Your task to perform on an android device: What's a good restaurant in Las Vegas? Image 0: 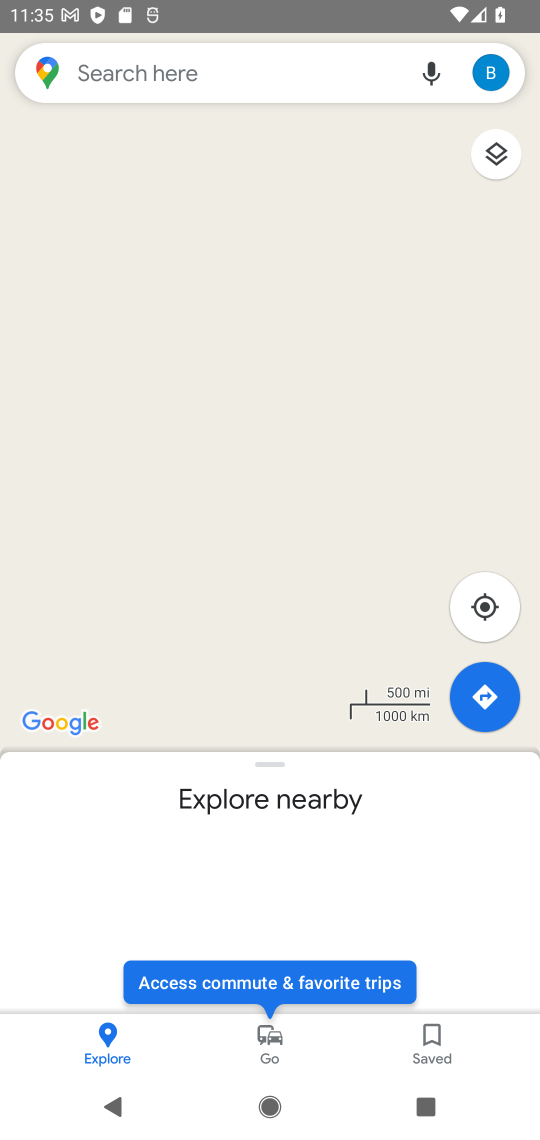
Step 0: press home button
Your task to perform on an android device: What's a good restaurant in Las Vegas? Image 1: 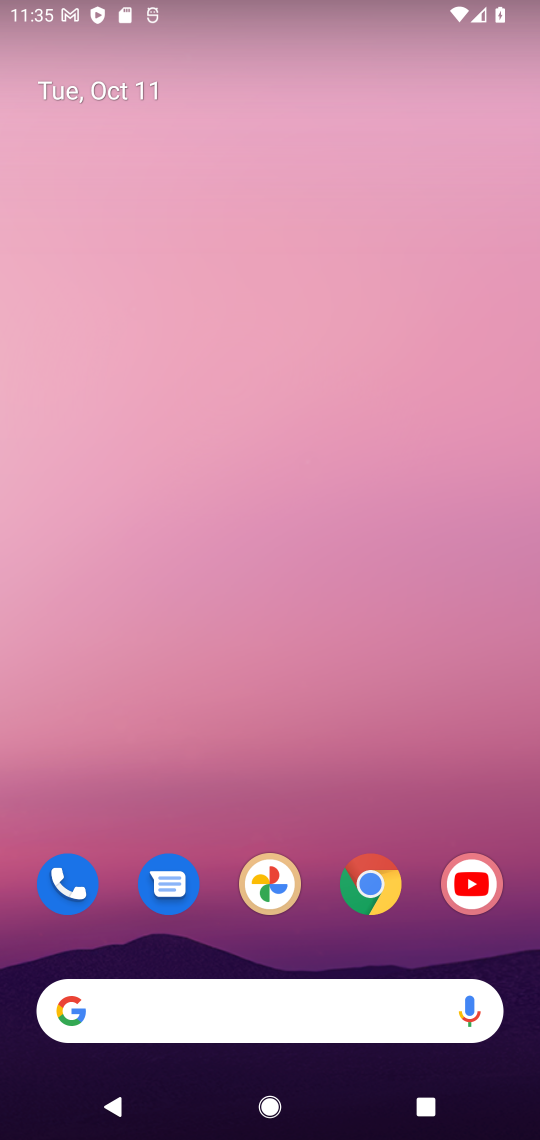
Step 1: drag from (242, 1022) to (284, 273)
Your task to perform on an android device: What's a good restaurant in Las Vegas? Image 2: 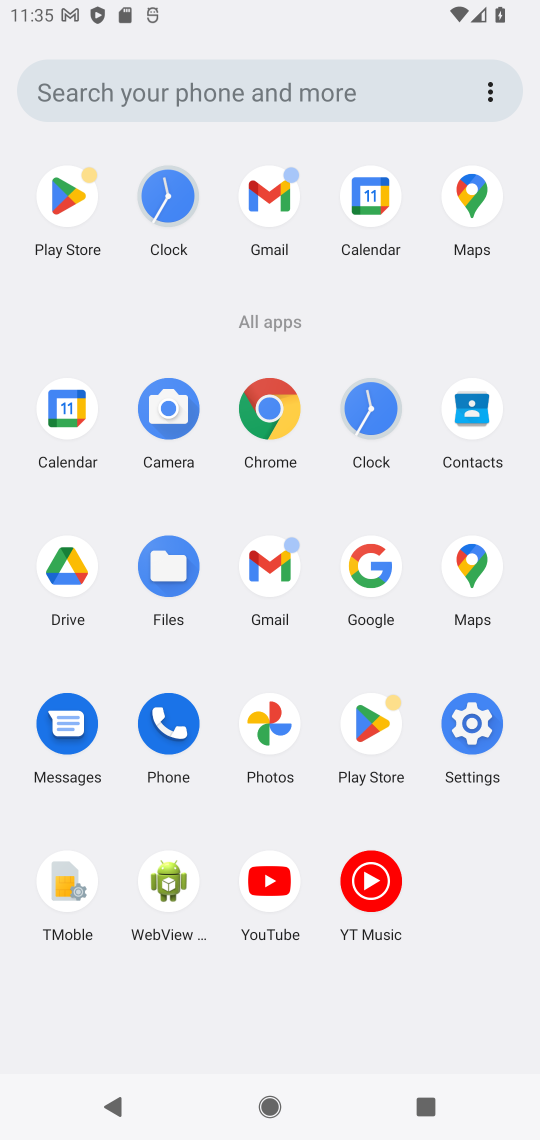
Step 2: click (375, 568)
Your task to perform on an android device: What's a good restaurant in Las Vegas? Image 3: 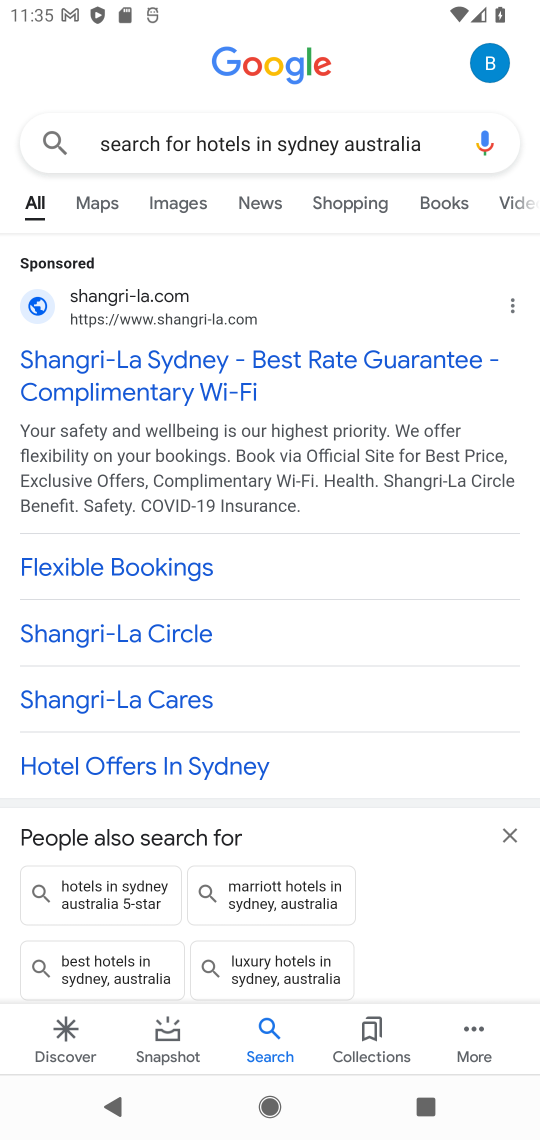
Step 3: click (221, 147)
Your task to perform on an android device: What's a good restaurant in Las Vegas? Image 4: 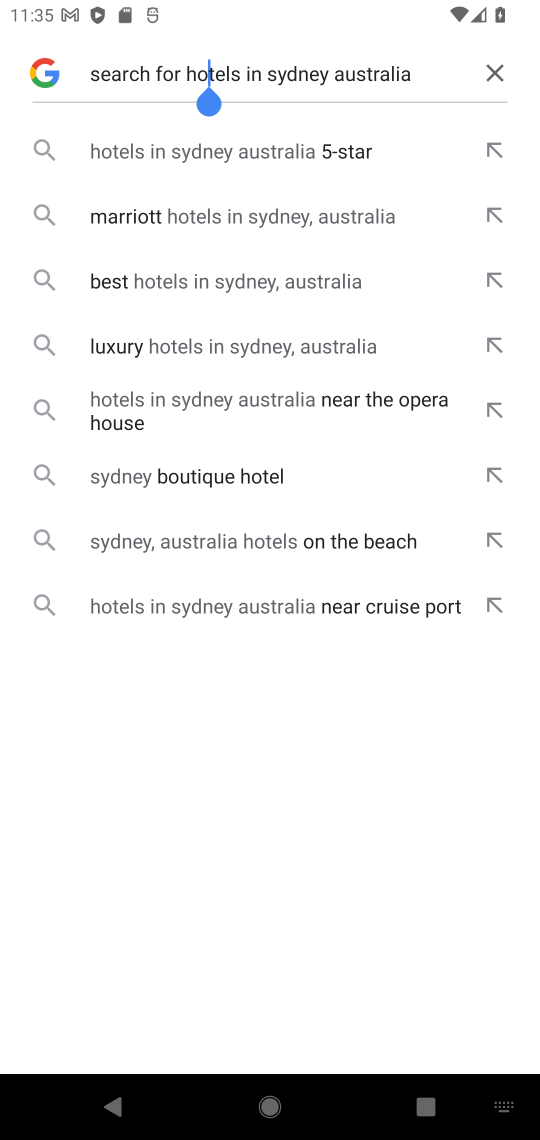
Step 4: click (490, 73)
Your task to perform on an android device: What's a good restaurant in Las Vegas? Image 5: 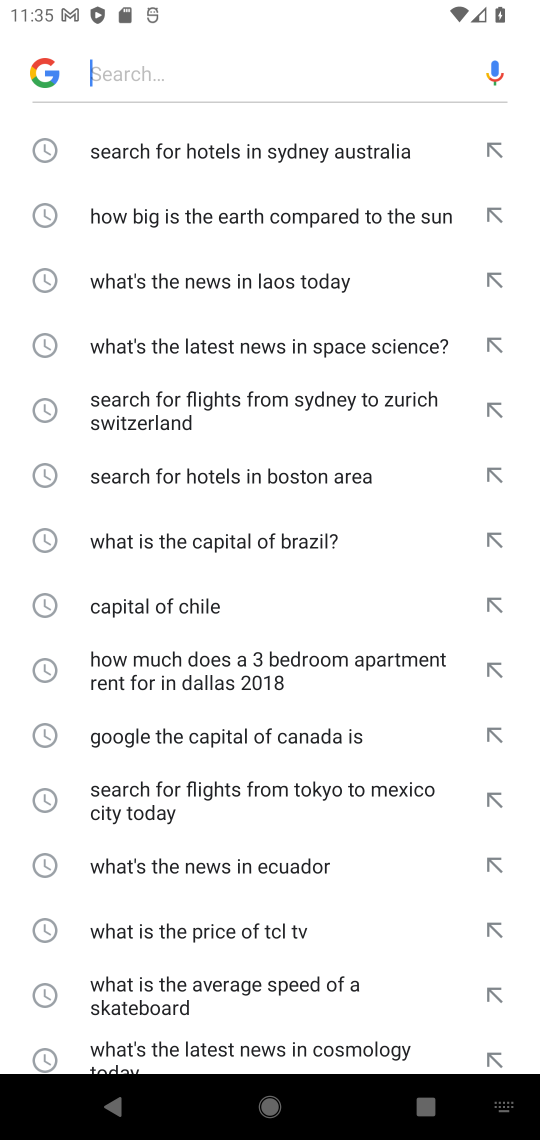
Step 5: type "What's a good restaurant in Las Vegas?"
Your task to perform on an android device: What's a good restaurant in Las Vegas? Image 6: 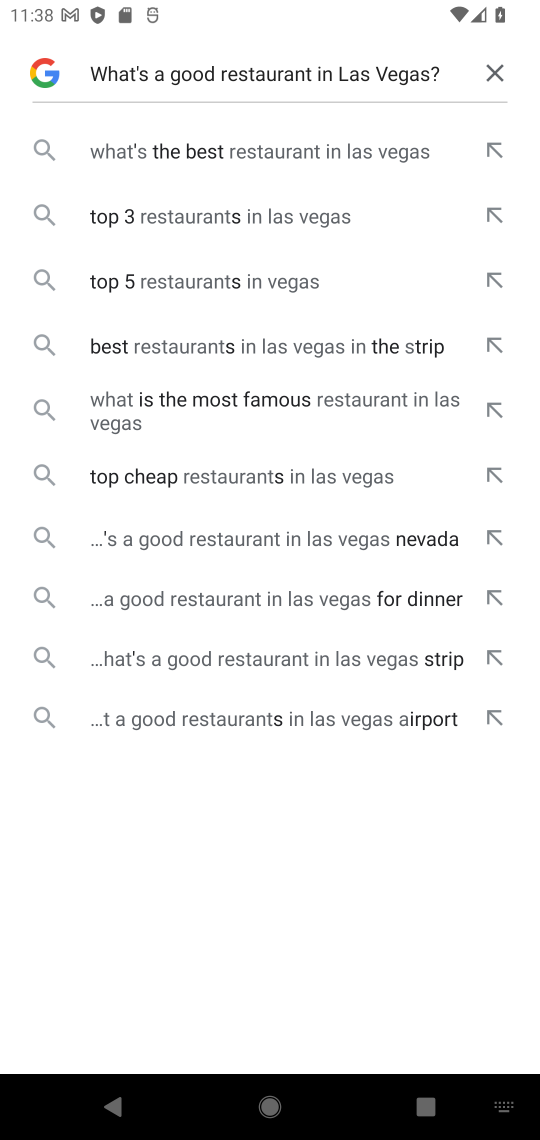
Step 6: click (245, 153)
Your task to perform on an android device: What's a good restaurant in Las Vegas? Image 7: 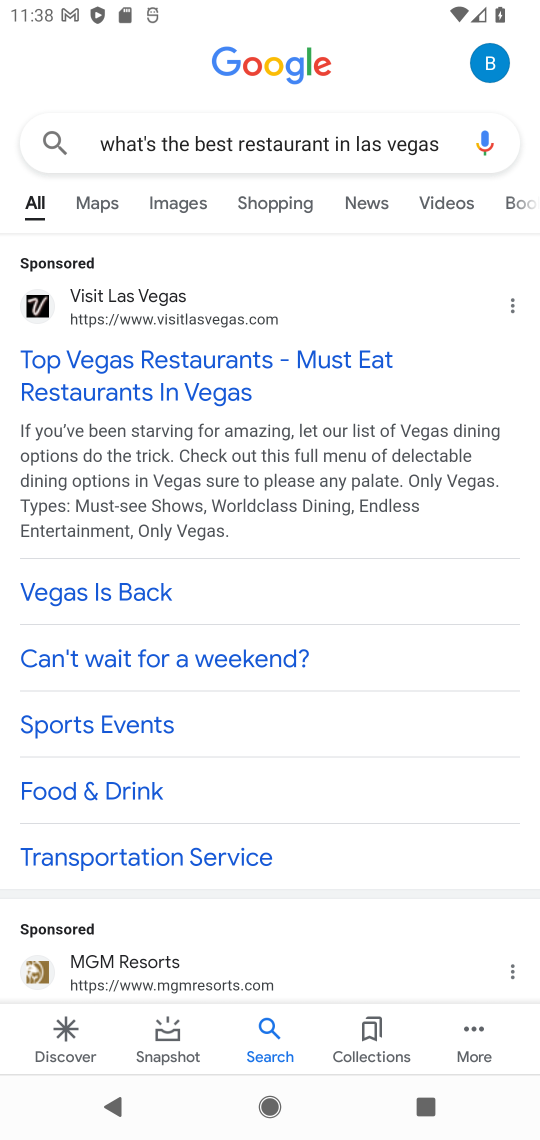
Step 7: click (232, 386)
Your task to perform on an android device: What's a good restaurant in Las Vegas? Image 8: 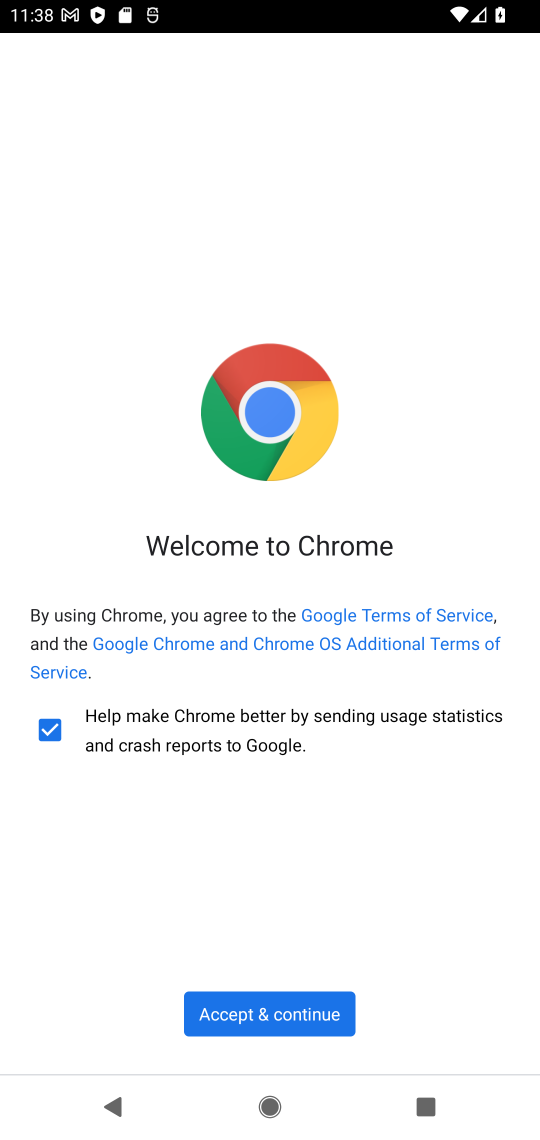
Step 8: click (314, 1004)
Your task to perform on an android device: What's a good restaurant in Las Vegas? Image 9: 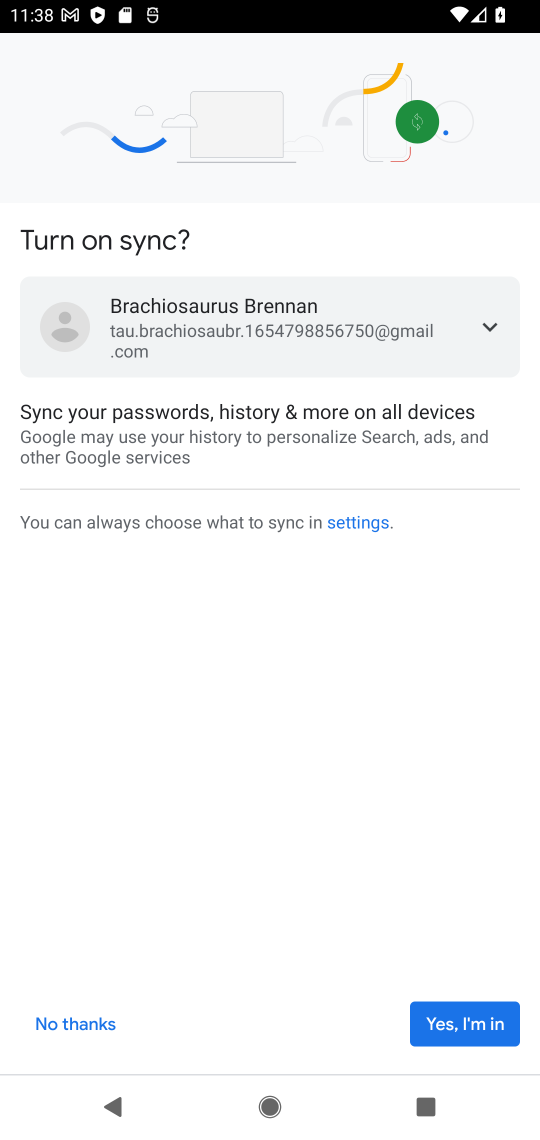
Step 9: click (463, 1028)
Your task to perform on an android device: What's a good restaurant in Las Vegas? Image 10: 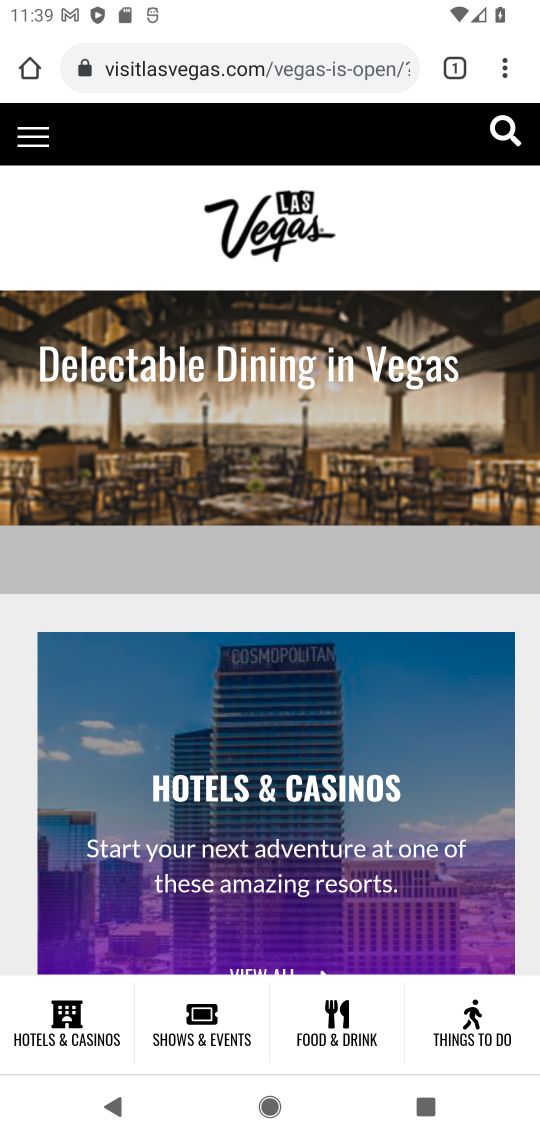
Step 10: task complete